Your task to perform on an android device: set the stopwatch Image 0: 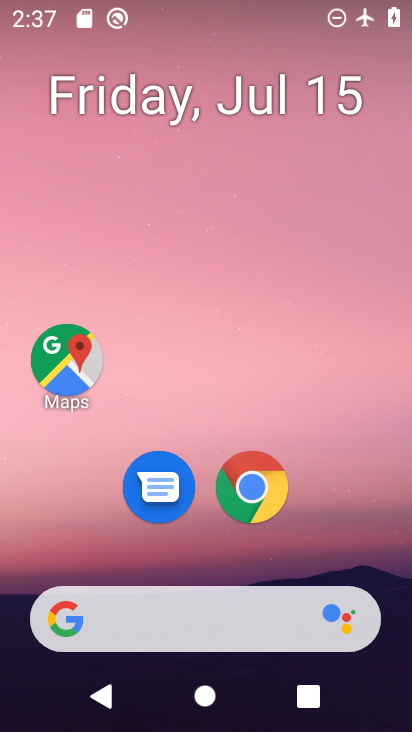
Step 0: drag from (182, 580) to (293, 0)
Your task to perform on an android device: set the stopwatch Image 1: 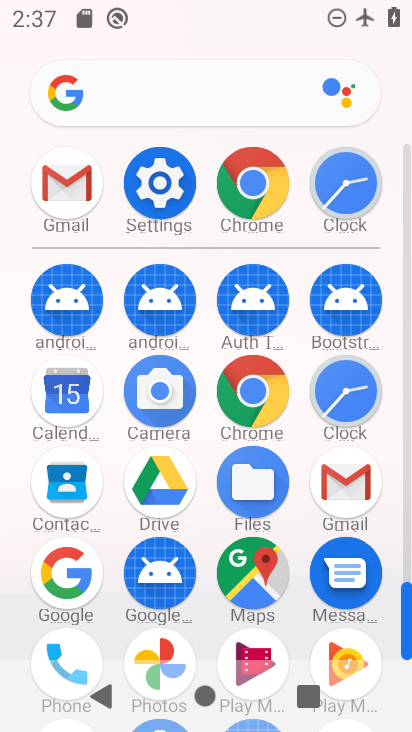
Step 1: click (364, 388)
Your task to perform on an android device: set the stopwatch Image 2: 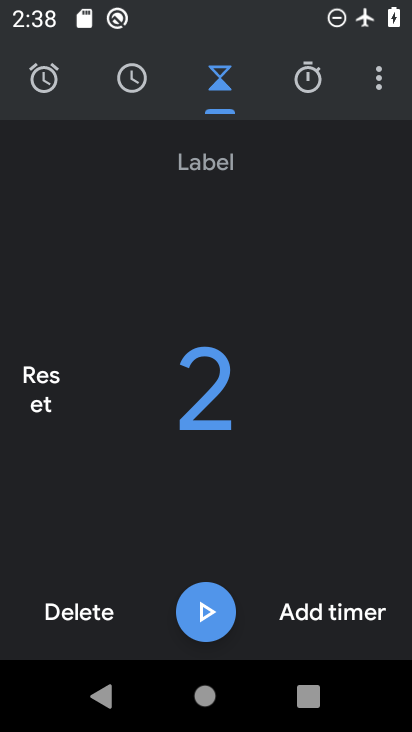
Step 2: click (321, 72)
Your task to perform on an android device: set the stopwatch Image 3: 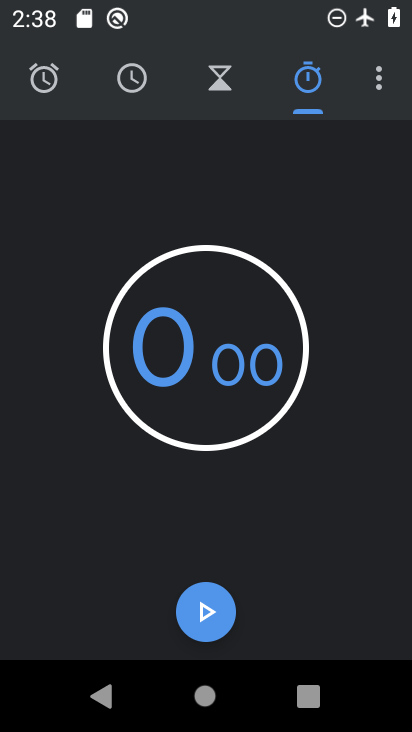
Step 3: task complete